Your task to perform on an android device: turn on wifi Image 0: 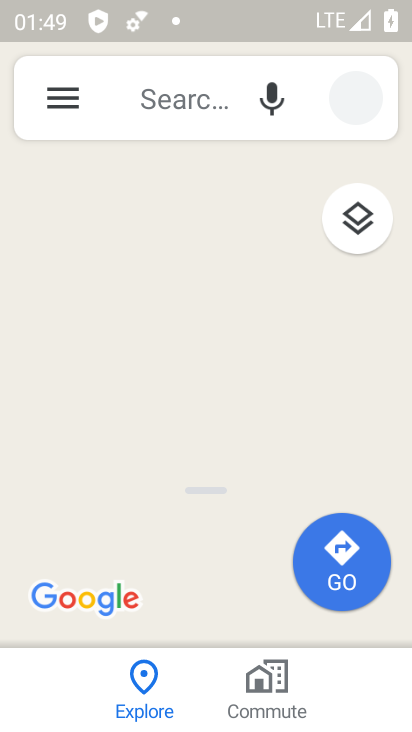
Step 0: press home button
Your task to perform on an android device: turn on wifi Image 1: 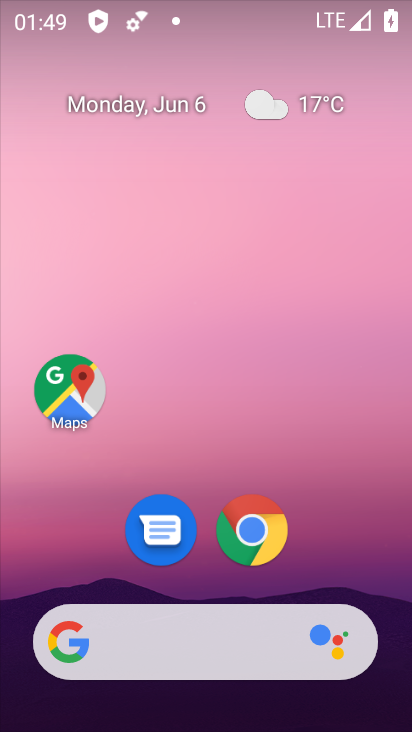
Step 1: drag from (282, 562) to (317, 240)
Your task to perform on an android device: turn on wifi Image 2: 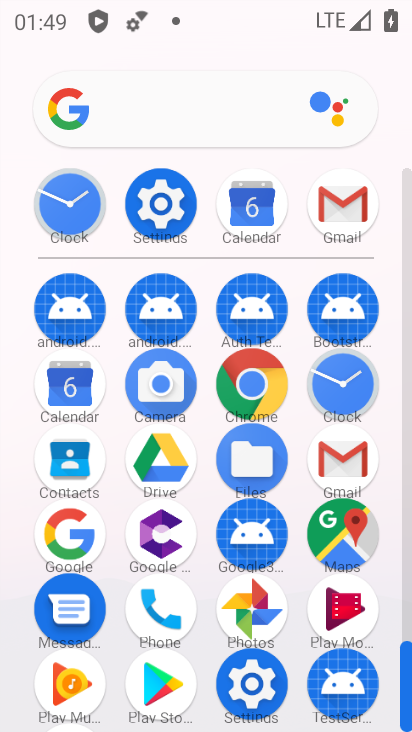
Step 2: click (155, 216)
Your task to perform on an android device: turn on wifi Image 3: 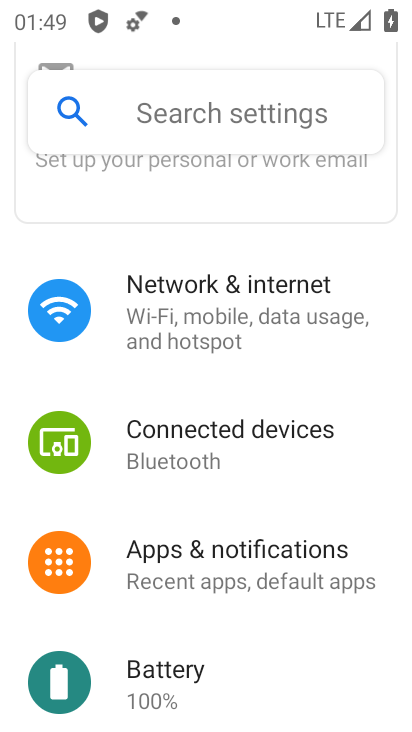
Step 3: drag from (226, 227) to (229, 620)
Your task to perform on an android device: turn on wifi Image 4: 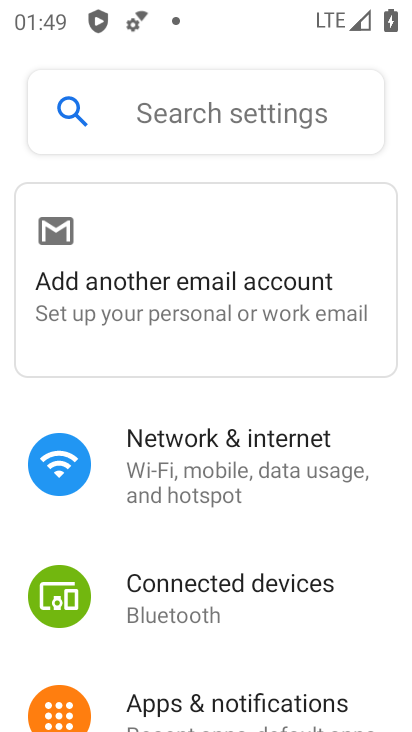
Step 4: click (215, 433)
Your task to perform on an android device: turn on wifi Image 5: 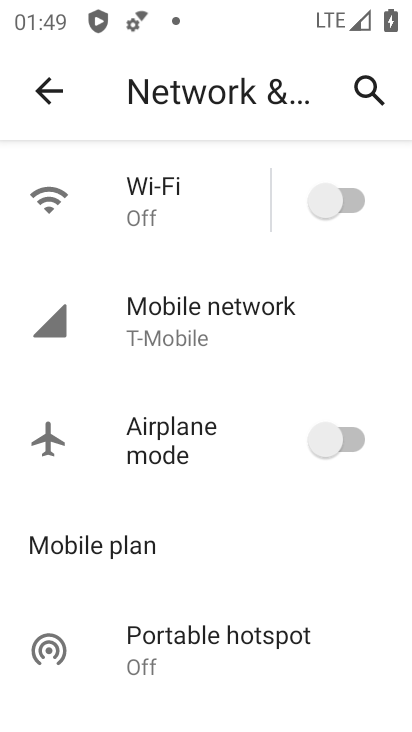
Step 5: click (314, 187)
Your task to perform on an android device: turn on wifi Image 6: 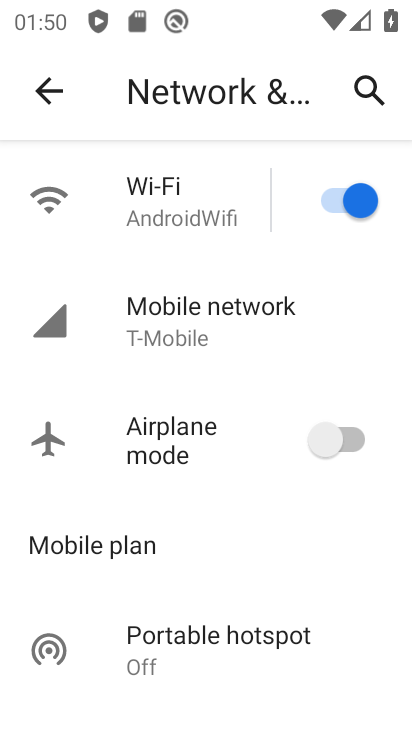
Step 6: task complete